Your task to perform on an android device: Open maps Image 0: 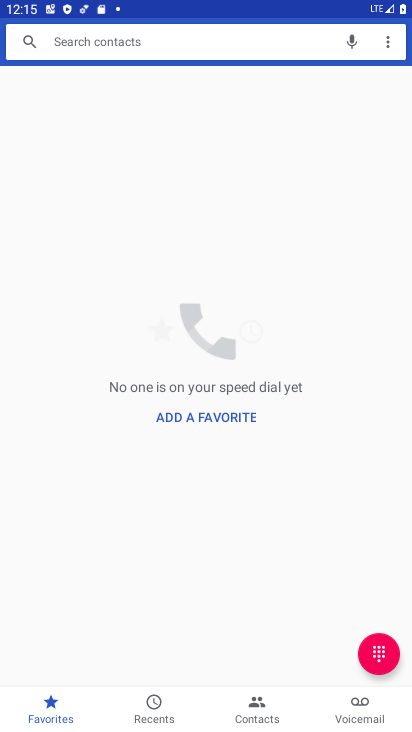
Step 0: task complete